Your task to perform on an android device: delete browsing data in the chrome app Image 0: 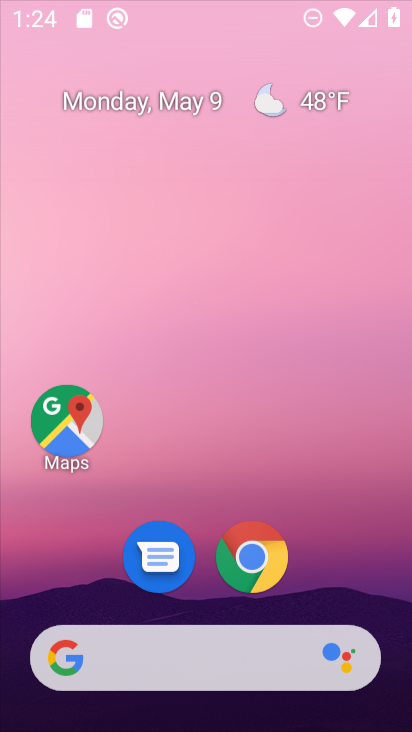
Step 0: click (219, 316)
Your task to perform on an android device: delete browsing data in the chrome app Image 1: 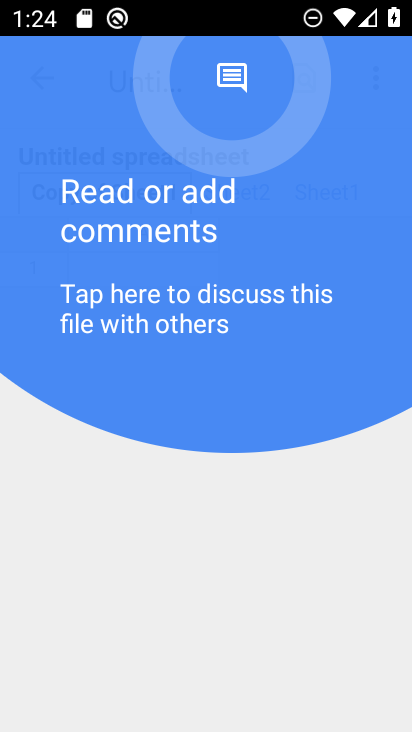
Step 1: click (197, 640)
Your task to perform on an android device: delete browsing data in the chrome app Image 2: 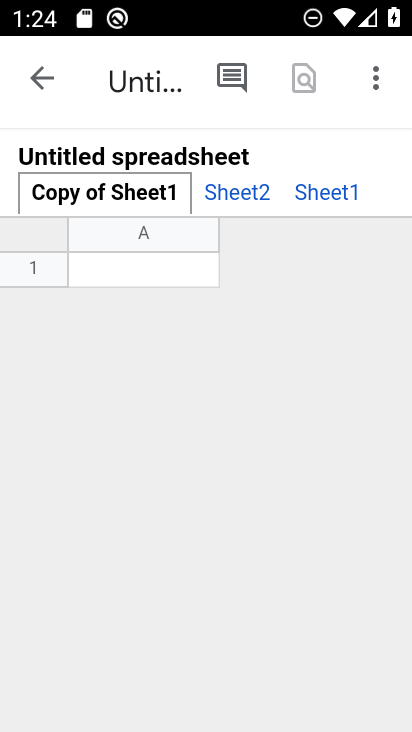
Step 2: press home button
Your task to perform on an android device: delete browsing data in the chrome app Image 3: 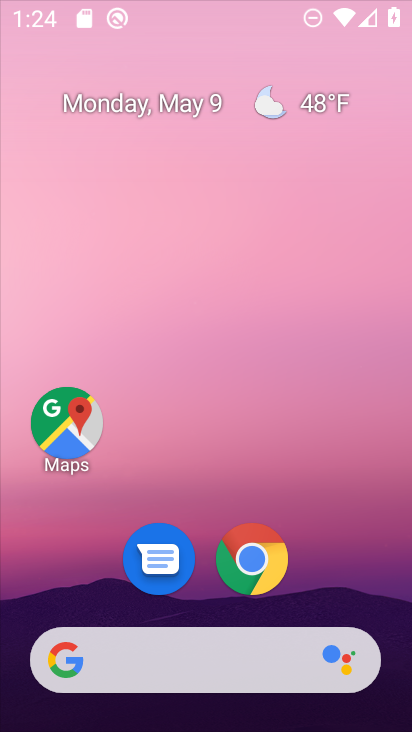
Step 3: drag from (240, 504) to (269, 143)
Your task to perform on an android device: delete browsing data in the chrome app Image 4: 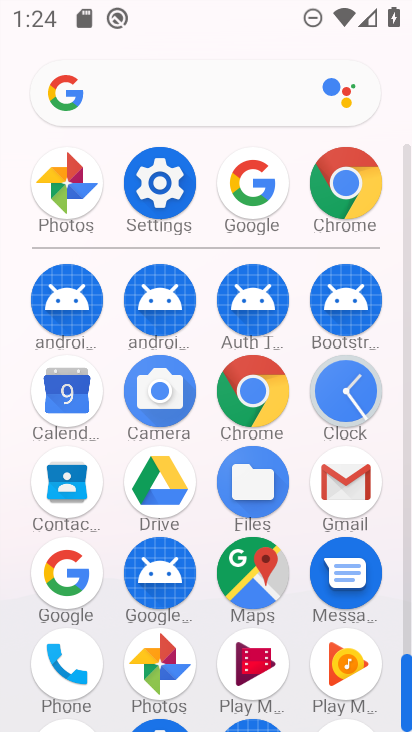
Step 4: drag from (205, 595) to (200, 355)
Your task to perform on an android device: delete browsing data in the chrome app Image 5: 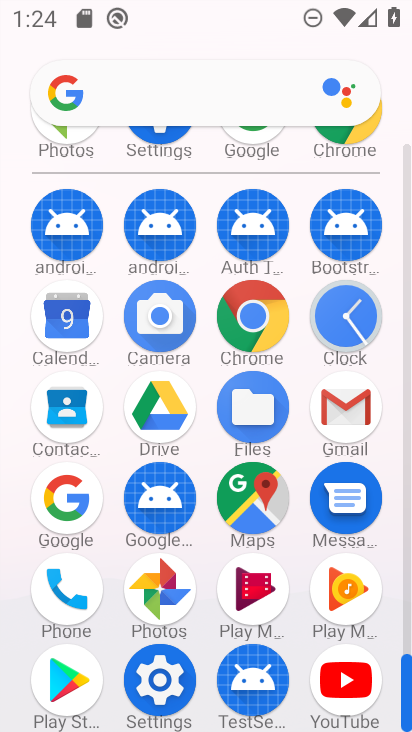
Step 5: click (260, 309)
Your task to perform on an android device: delete browsing data in the chrome app Image 6: 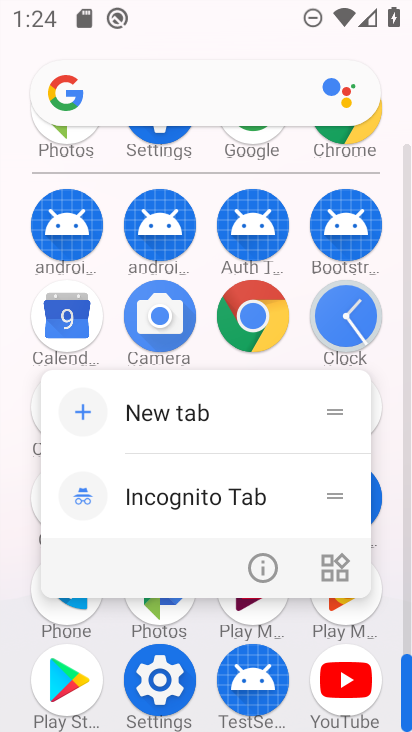
Step 6: click (256, 582)
Your task to perform on an android device: delete browsing data in the chrome app Image 7: 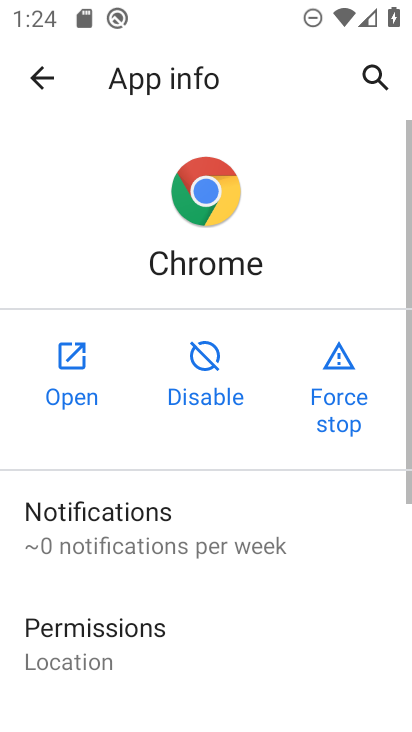
Step 7: click (77, 351)
Your task to perform on an android device: delete browsing data in the chrome app Image 8: 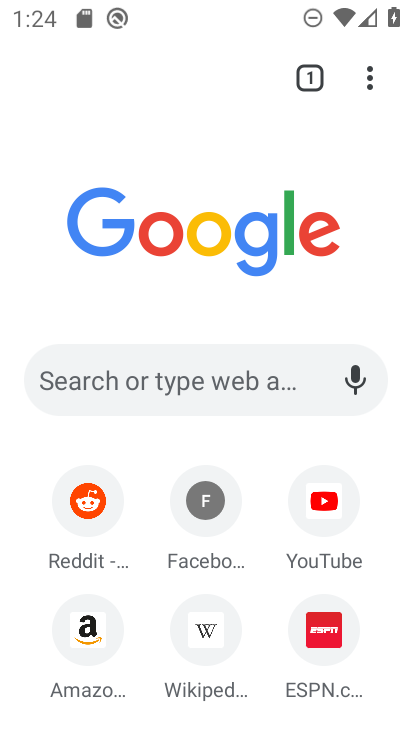
Step 8: drag from (153, 570) to (168, 218)
Your task to perform on an android device: delete browsing data in the chrome app Image 9: 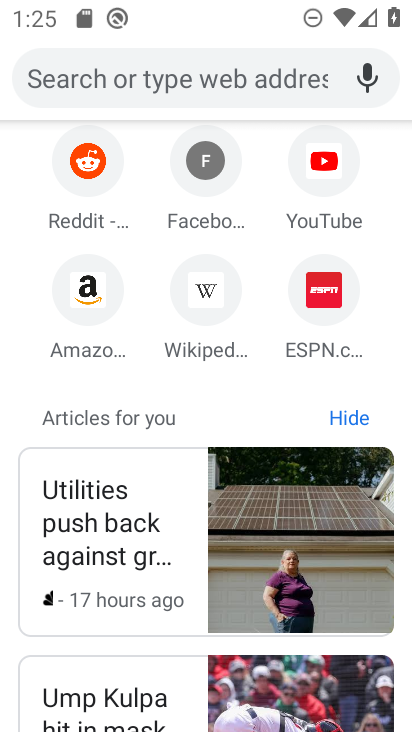
Step 9: drag from (264, 243) to (289, 723)
Your task to perform on an android device: delete browsing data in the chrome app Image 10: 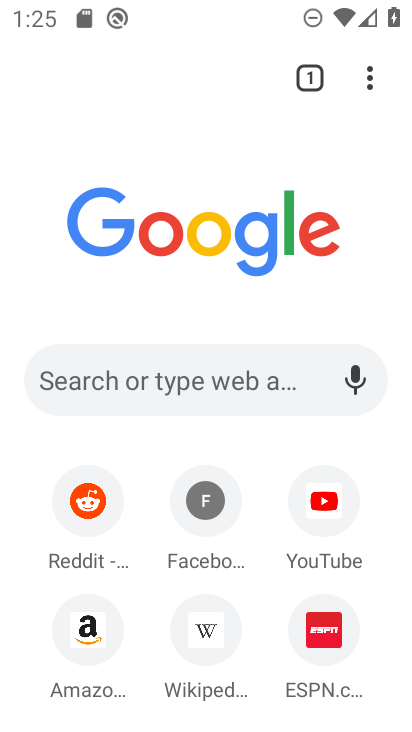
Step 10: drag from (373, 81) to (137, 389)
Your task to perform on an android device: delete browsing data in the chrome app Image 11: 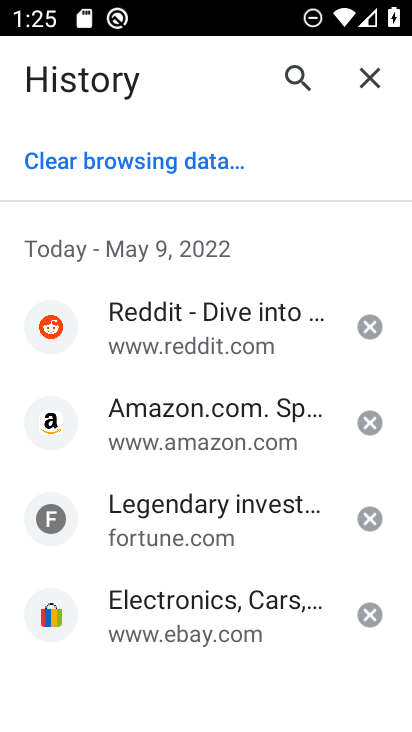
Step 11: click (131, 167)
Your task to perform on an android device: delete browsing data in the chrome app Image 12: 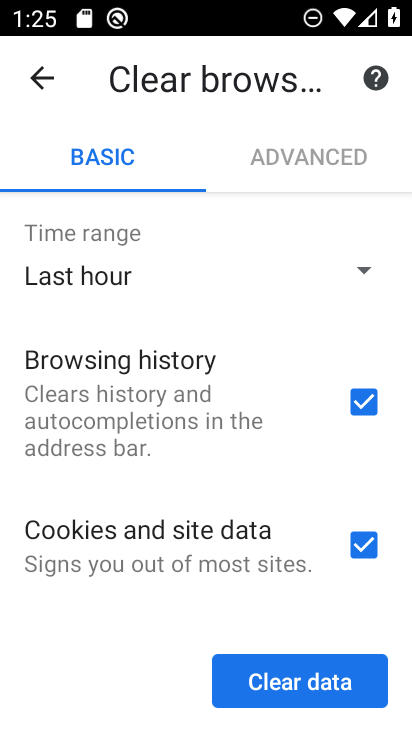
Step 12: click (305, 692)
Your task to perform on an android device: delete browsing data in the chrome app Image 13: 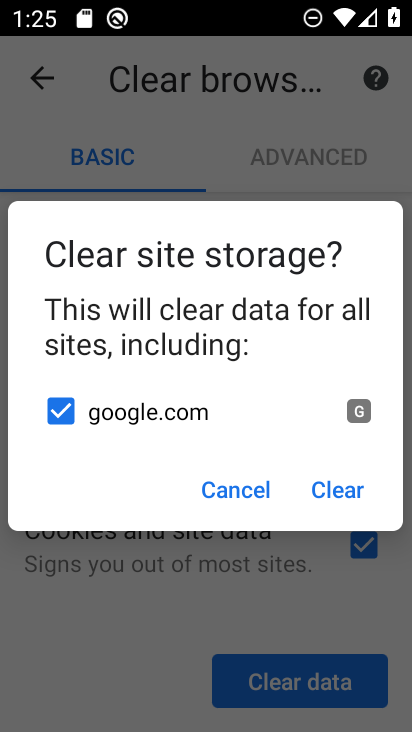
Step 13: click (328, 487)
Your task to perform on an android device: delete browsing data in the chrome app Image 14: 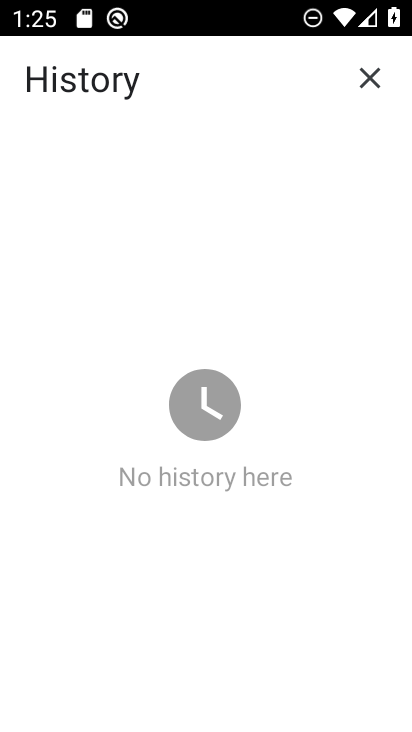
Step 14: task complete